Your task to perform on an android device: See recent photos Image 0: 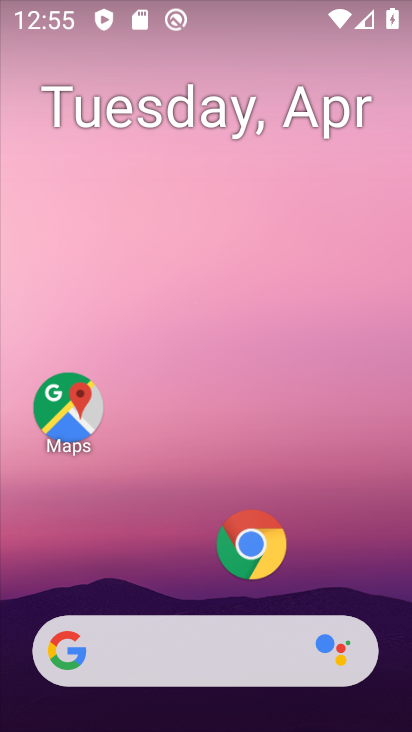
Step 0: drag from (122, 528) to (200, 105)
Your task to perform on an android device: See recent photos Image 1: 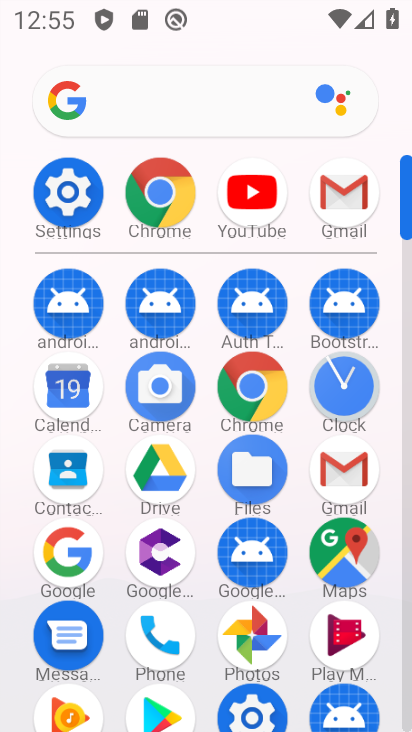
Step 1: click (249, 626)
Your task to perform on an android device: See recent photos Image 2: 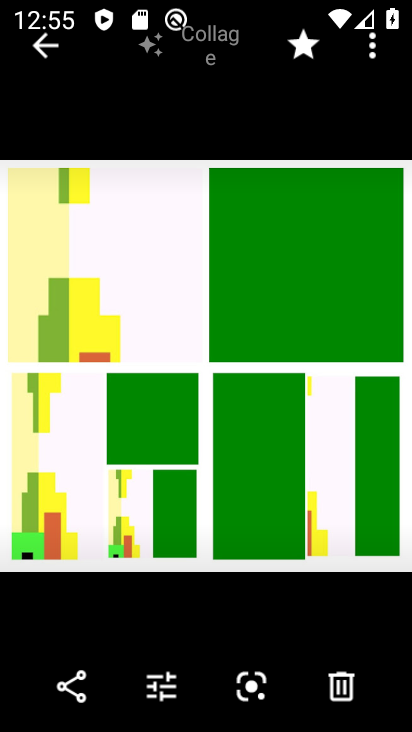
Step 2: click (46, 50)
Your task to perform on an android device: See recent photos Image 3: 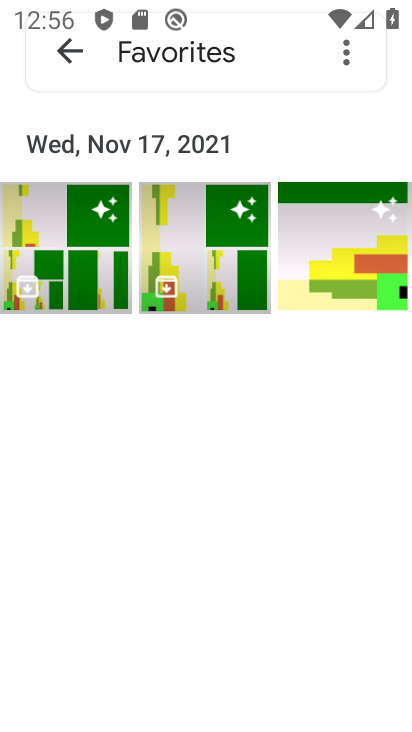
Step 3: task complete